Your task to perform on an android device: Open Wikipedia Image 0: 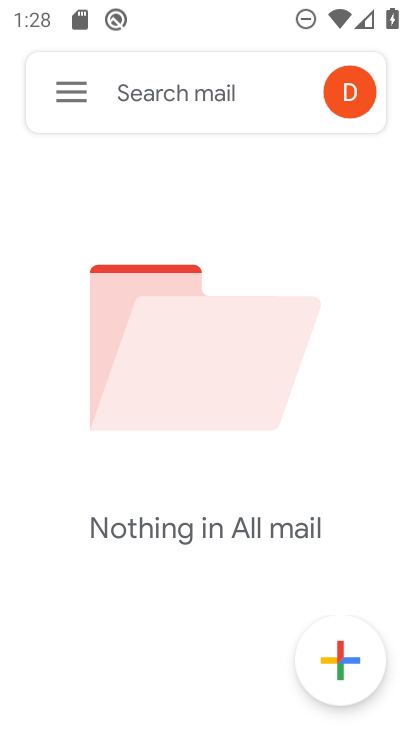
Step 0: press home button
Your task to perform on an android device: Open Wikipedia Image 1: 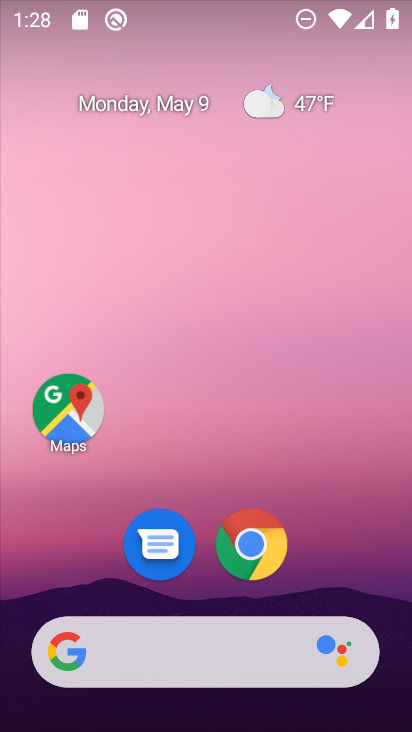
Step 1: drag from (348, 522) to (303, 149)
Your task to perform on an android device: Open Wikipedia Image 2: 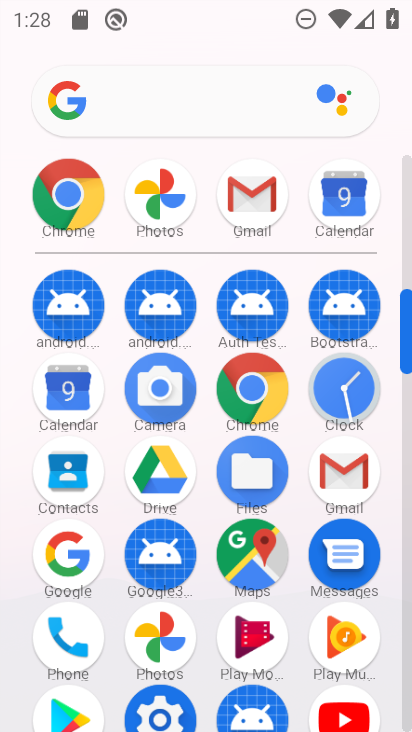
Step 2: click (59, 192)
Your task to perform on an android device: Open Wikipedia Image 3: 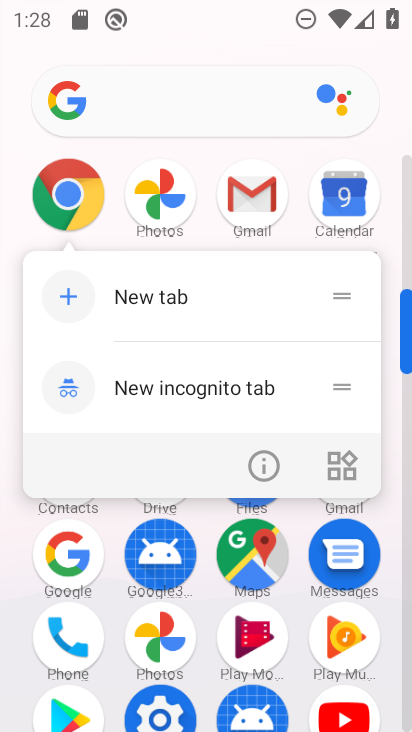
Step 3: click (60, 192)
Your task to perform on an android device: Open Wikipedia Image 4: 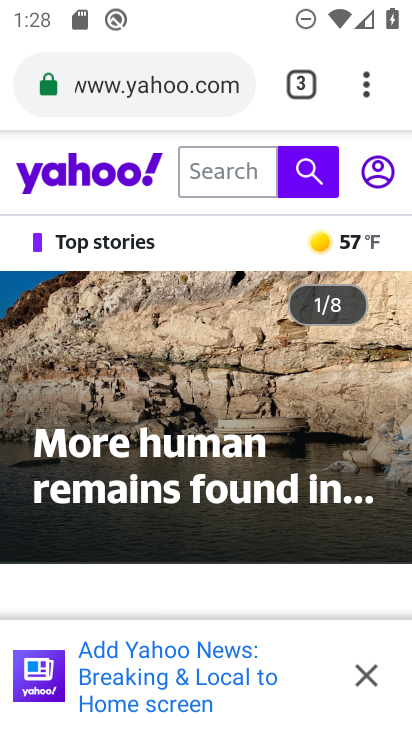
Step 4: click (186, 93)
Your task to perform on an android device: Open Wikipedia Image 5: 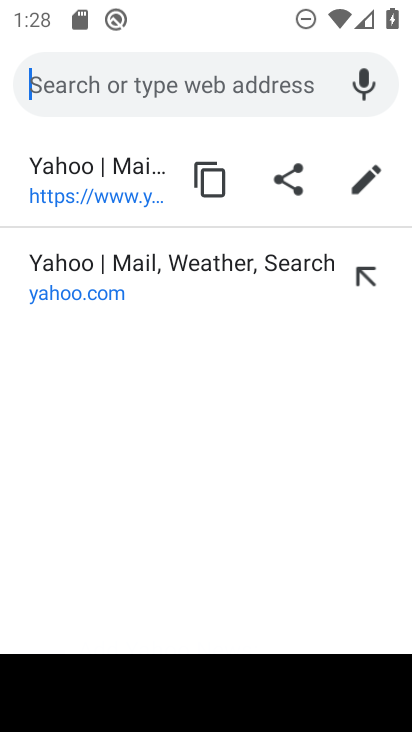
Step 5: type "wikipedia"
Your task to perform on an android device: Open Wikipedia Image 6: 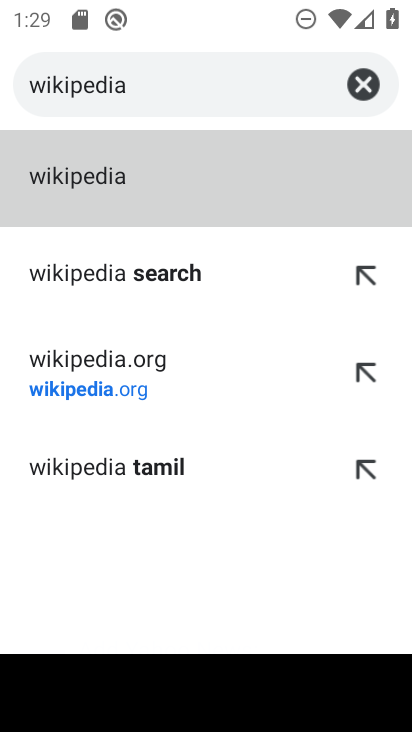
Step 6: click (91, 184)
Your task to perform on an android device: Open Wikipedia Image 7: 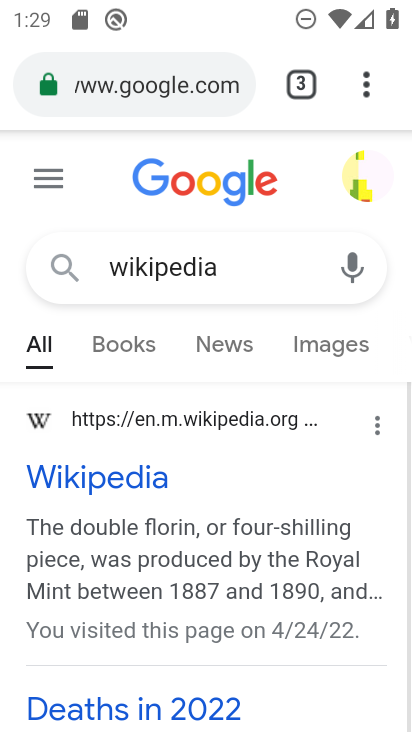
Step 7: click (61, 492)
Your task to perform on an android device: Open Wikipedia Image 8: 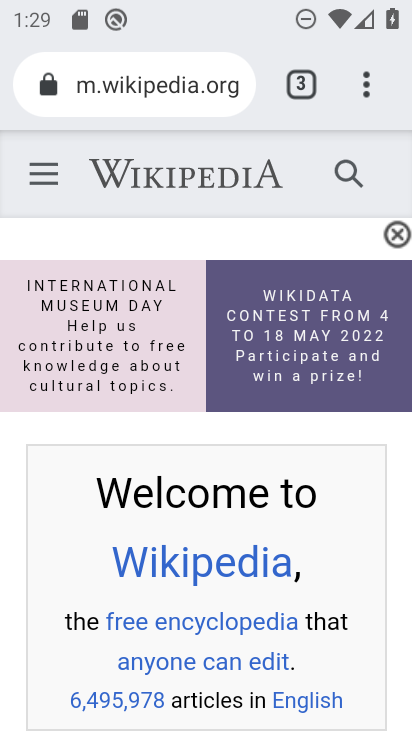
Step 8: task complete